Your task to perform on an android device: turn off location Image 0: 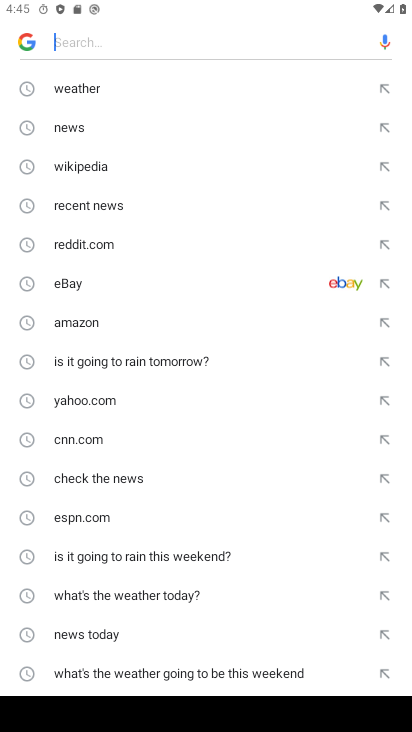
Step 0: press back button
Your task to perform on an android device: turn off location Image 1: 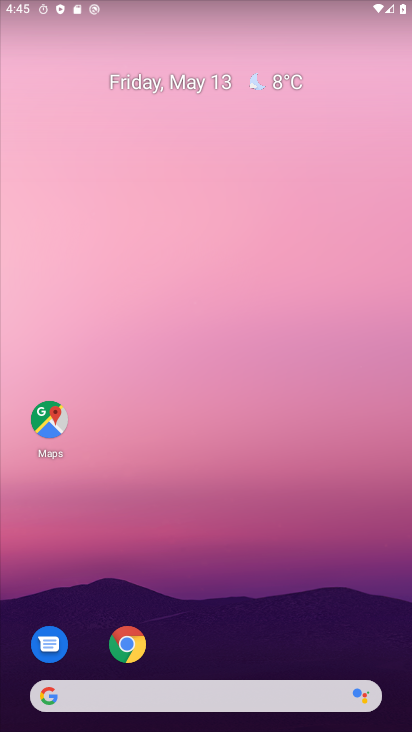
Step 1: drag from (275, 651) to (338, 115)
Your task to perform on an android device: turn off location Image 2: 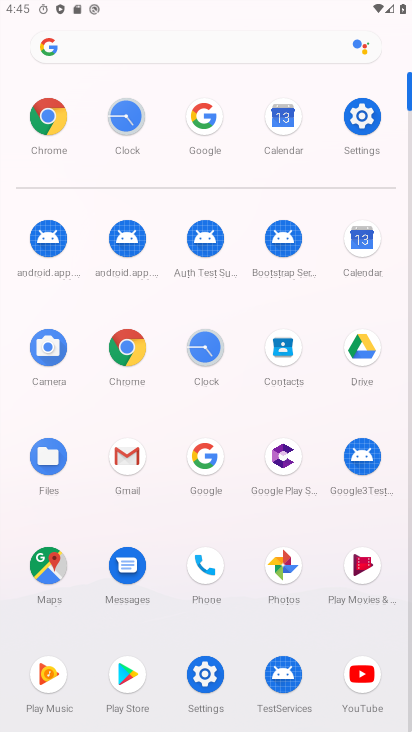
Step 2: click (349, 104)
Your task to perform on an android device: turn off location Image 3: 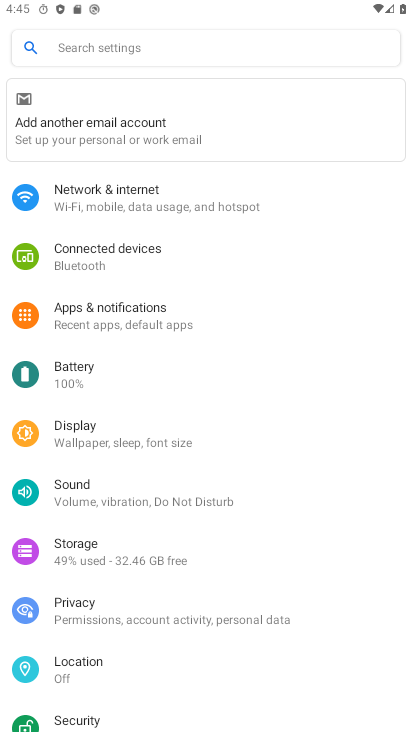
Step 3: click (119, 659)
Your task to perform on an android device: turn off location Image 4: 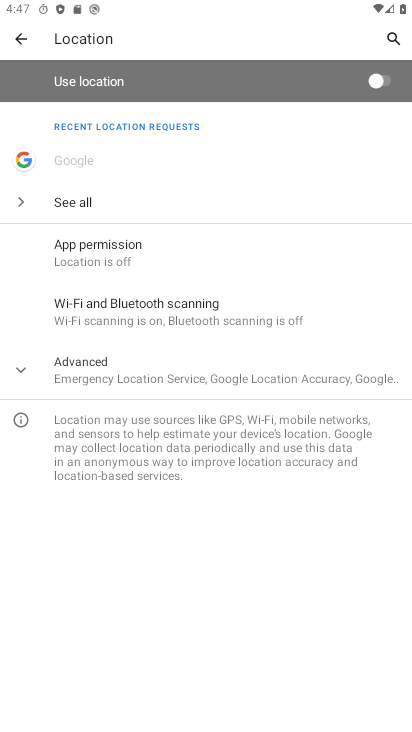
Step 4: task complete